Your task to perform on an android device: Open internet settings Image 0: 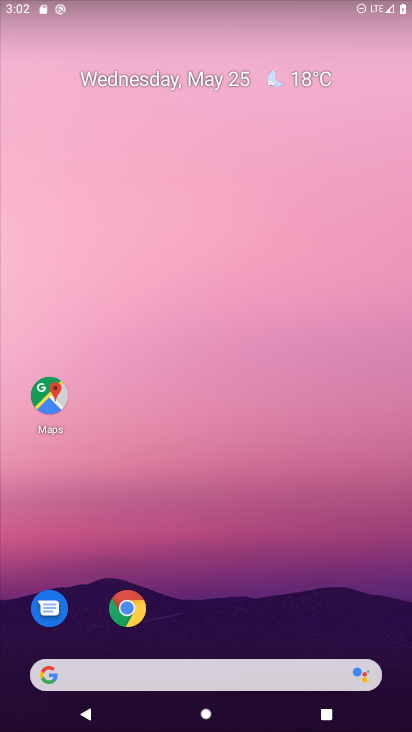
Step 0: drag from (364, 613) to (275, 128)
Your task to perform on an android device: Open internet settings Image 1: 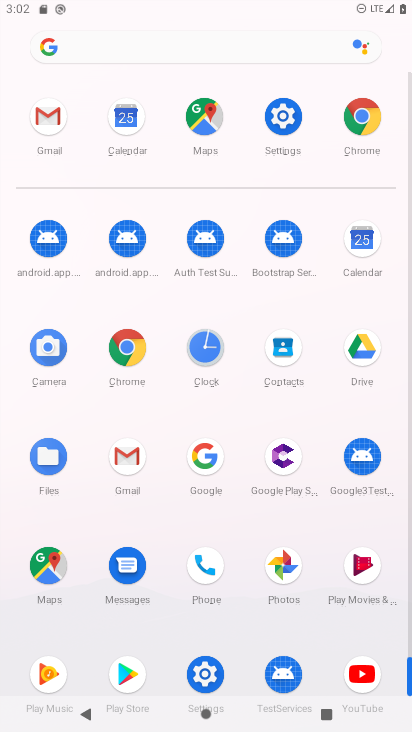
Step 1: click (203, 675)
Your task to perform on an android device: Open internet settings Image 2: 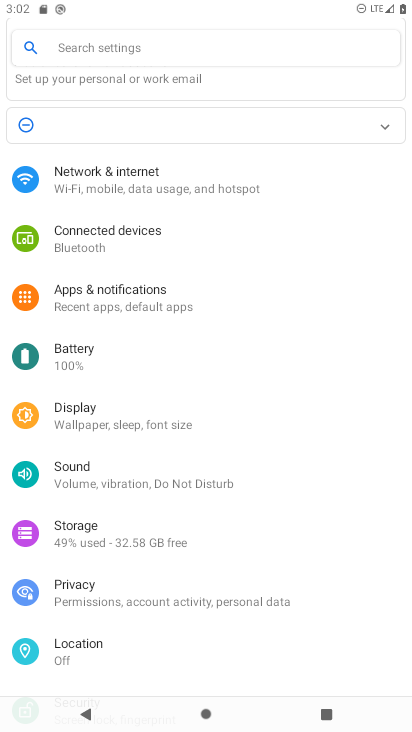
Step 2: click (100, 175)
Your task to perform on an android device: Open internet settings Image 3: 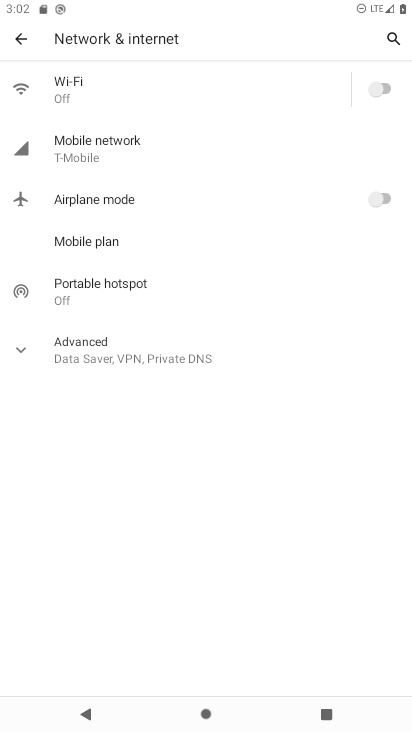
Step 3: click (61, 80)
Your task to perform on an android device: Open internet settings Image 4: 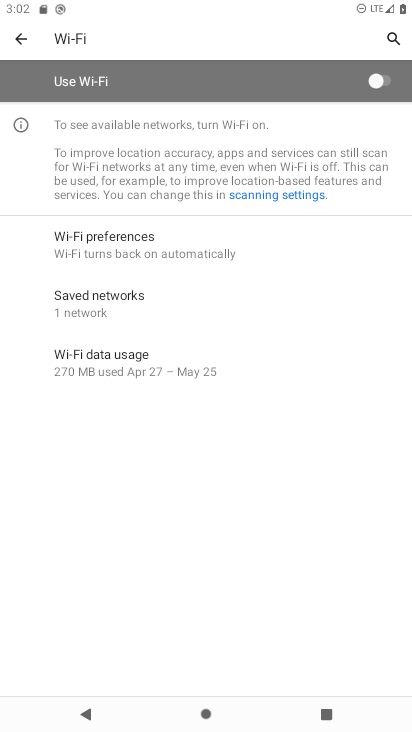
Step 4: task complete